Your task to perform on an android device: What's the weather going to be tomorrow? Image 0: 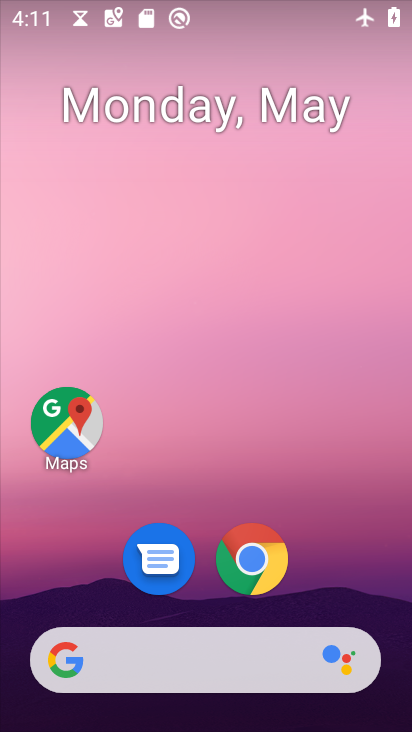
Step 0: click (202, 665)
Your task to perform on an android device: What's the weather going to be tomorrow? Image 1: 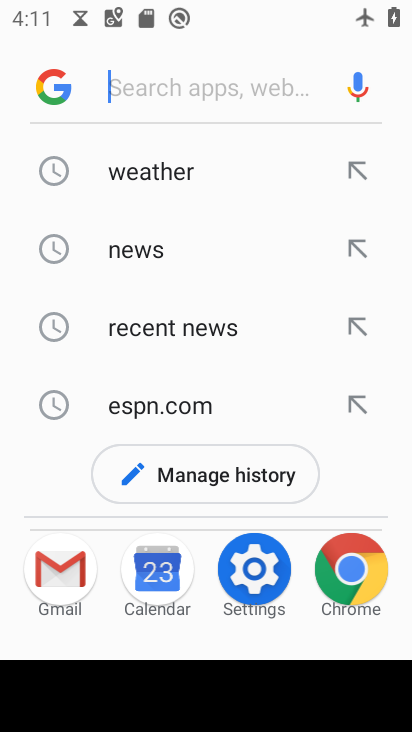
Step 1: click (150, 178)
Your task to perform on an android device: What's the weather going to be tomorrow? Image 2: 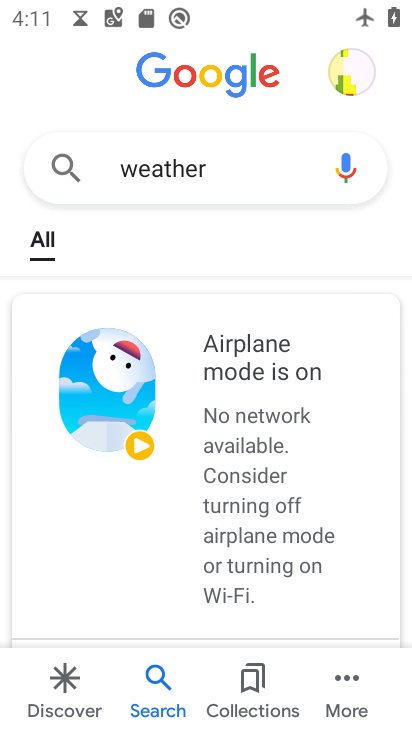
Step 2: task complete